Your task to perform on an android device: find snoozed emails in the gmail app Image 0: 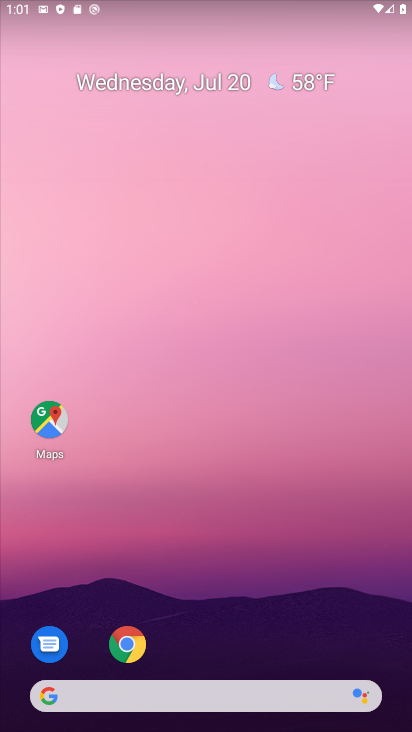
Step 0: drag from (173, 647) to (149, 152)
Your task to perform on an android device: find snoozed emails in the gmail app Image 1: 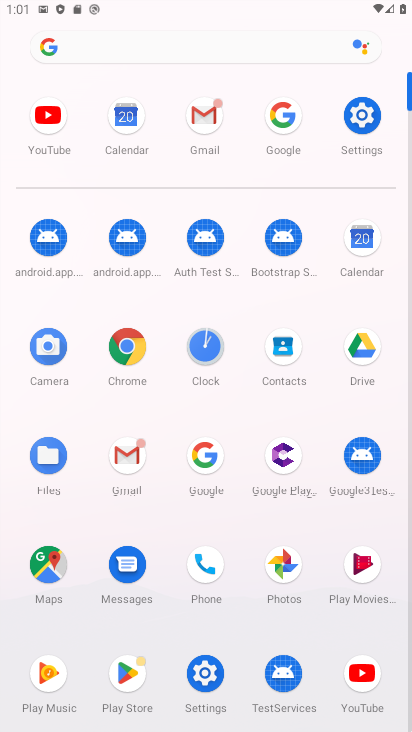
Step 1: click (202, 120)
Your task to perform on an android device: find snoozed emails in the gmail app Image 2: 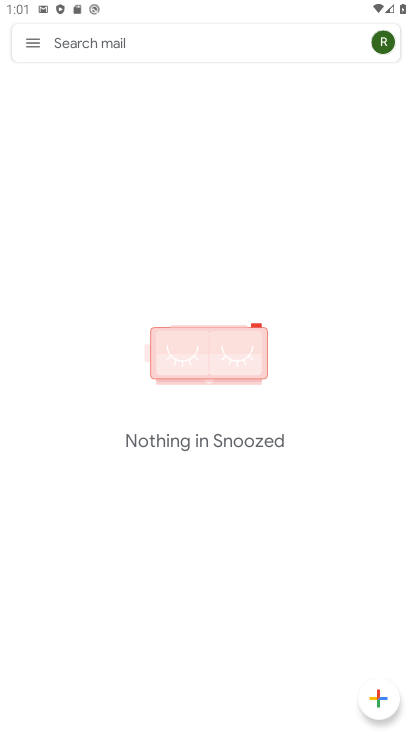
Step 2: task complete